Your task to perform on an android device: Open Chrome and go to settings Image 0: 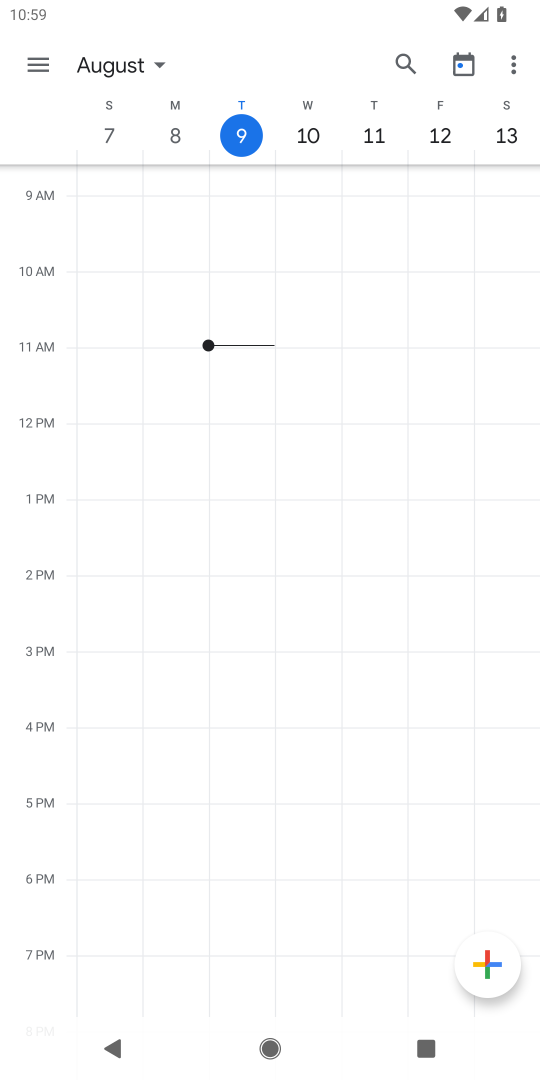
Step 0: press home button
Your task to perform on an android device: Open Chrome and go to settings Image 1: 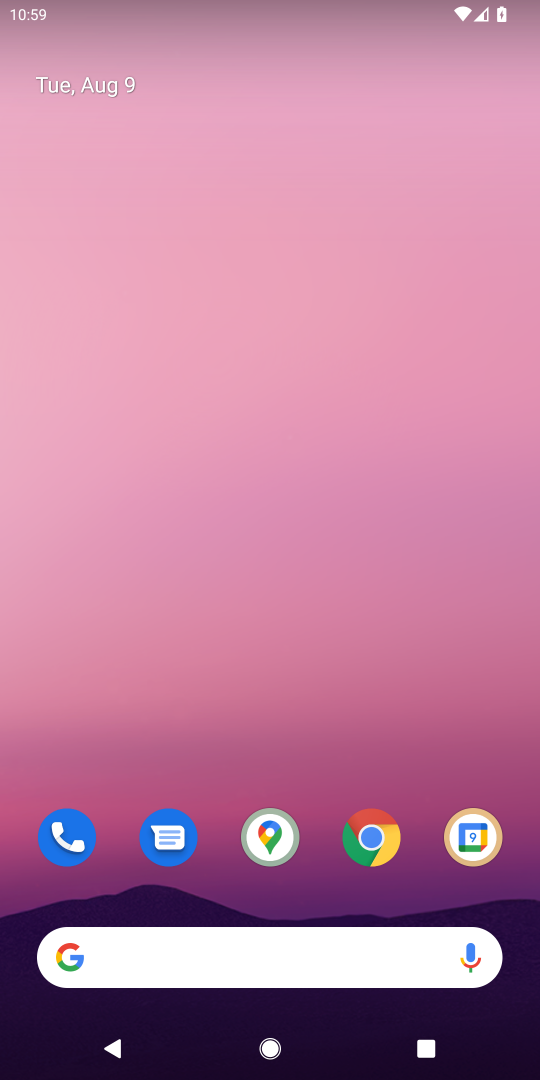
Step 1: click (384, 833)
Your task to perform on an android device: Open Chrome and go to settings Image 2: 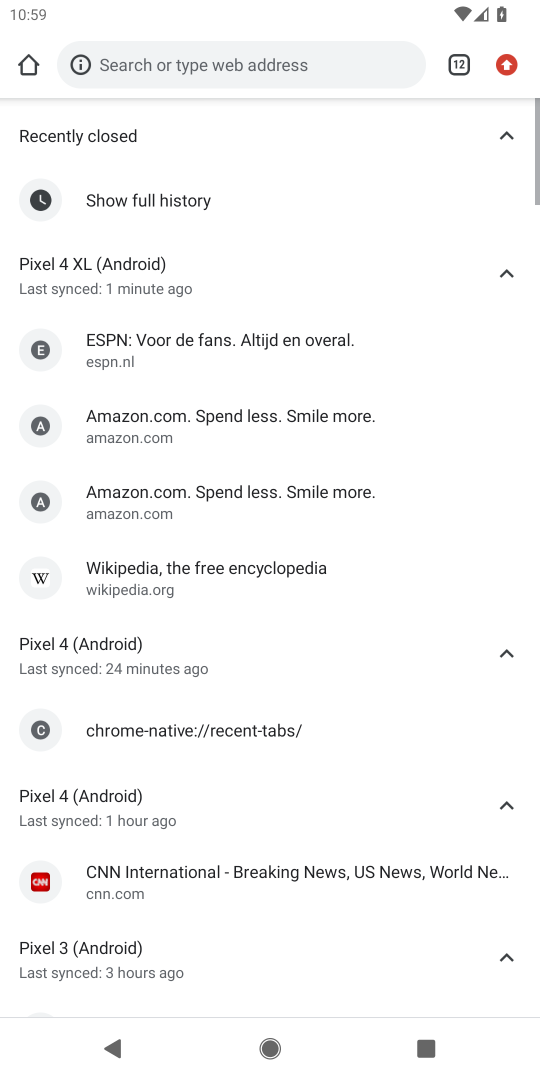
Step 2: click (505, 70)
Your task to perform on an android device: Open Chrome and go to settings Image 3: 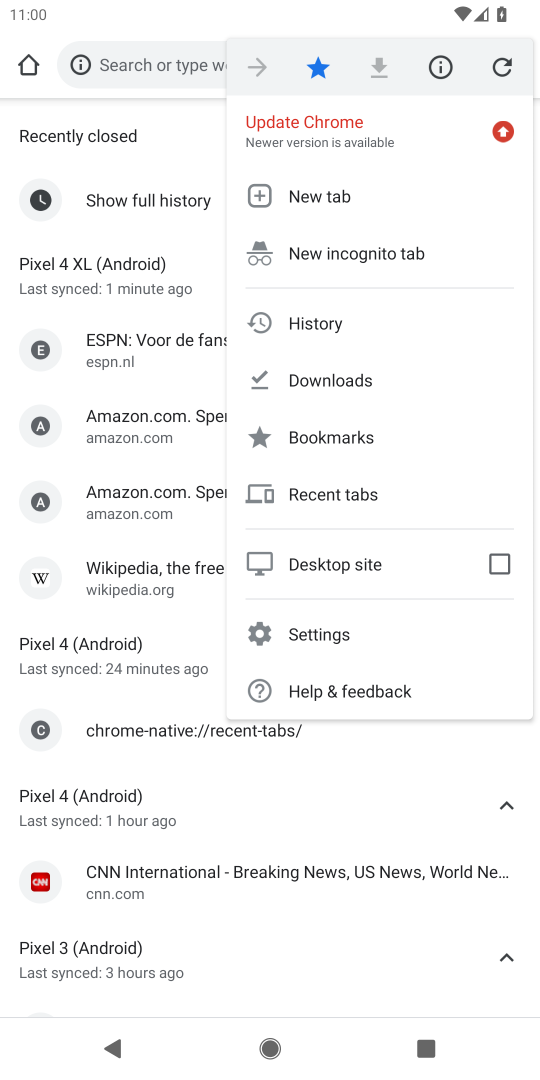
Step 3: click (310, 631)
Your task to perform on an android device: Open Chrome and go to settings Image 4: 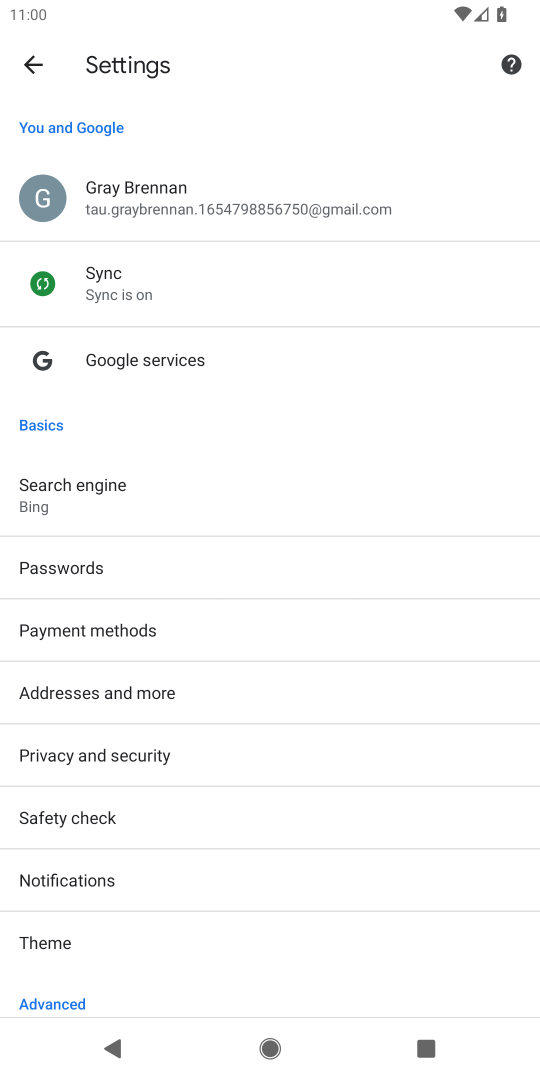
Step 4: task complete